Your task to perform on an android device: turn off wifi Image 0: 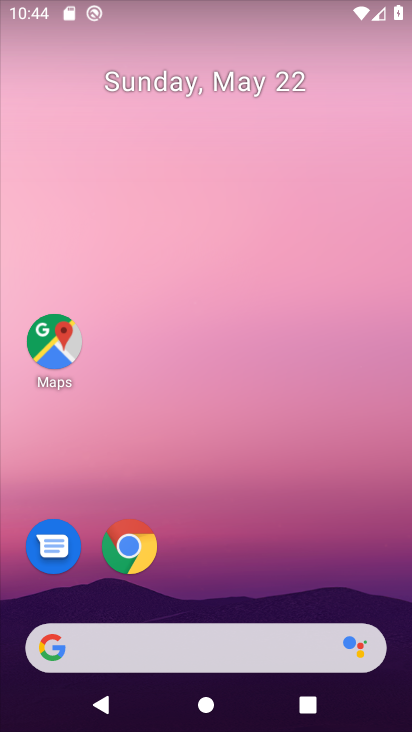
Step 0: drag from (199, 593) to (268, 302)
Your task to perform on an android device: turn off wifi Image 1: 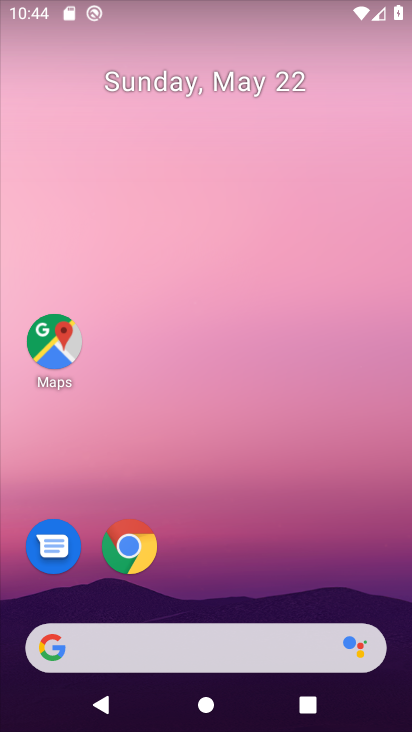
Step 1: drag from (259, 556) to (258, 207)
Your task to perform on an android device: turn off wifi Image 2: 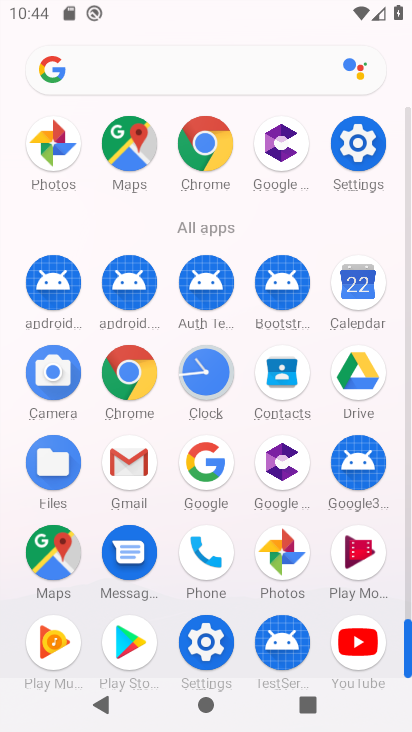
Step 2: click (365, 165)
Your task to perform on an android device: turn off wifi Image 3: 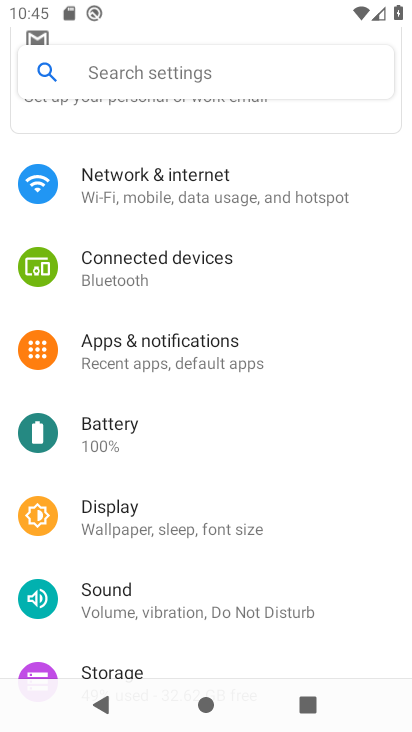
Step 3: click (253, 183)
Your task to perform on an android device: turn off wifi Image 4: 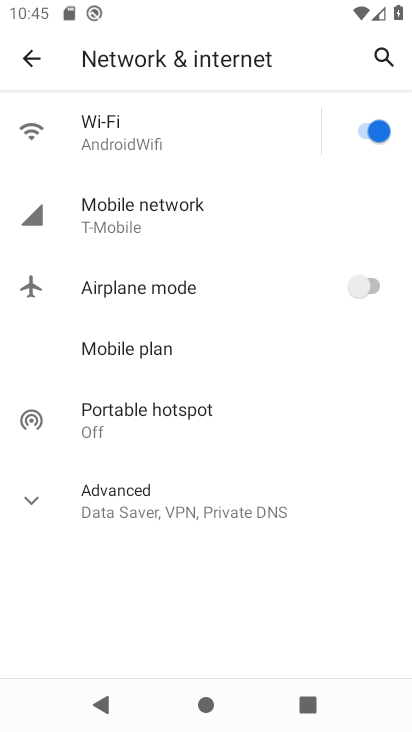
Step 4: click (353, 135)
Your task to perform on an android device: turn off wifi Image 5: 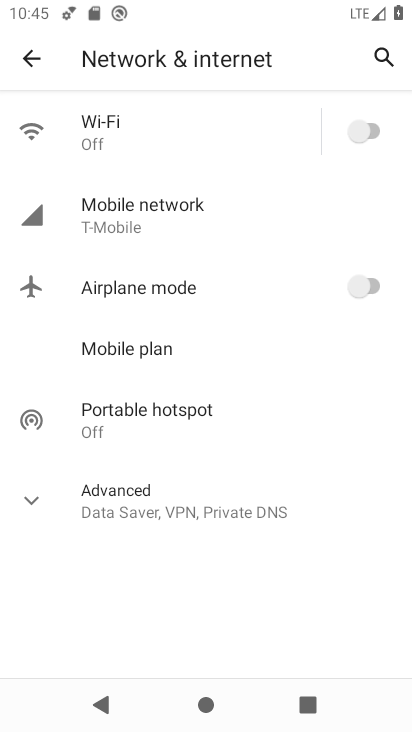
Step 5: task complete